Your task to perform on an android device: turn on airplane mode Image 0: 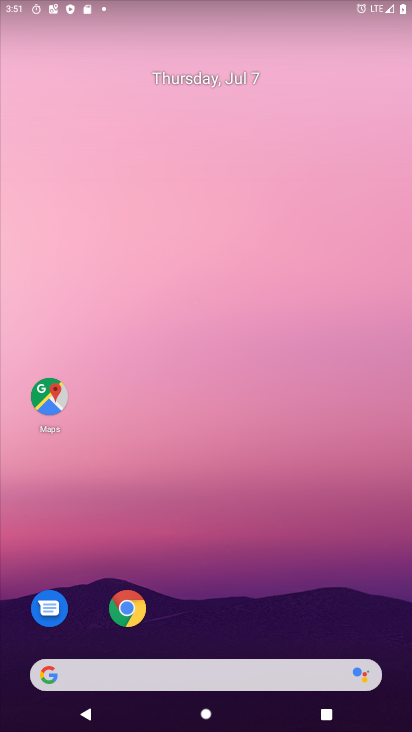
Step 0: drag from (244, 720) to (237, 146)
Your task to perform on an android device: turn on airplane mode Image 1: 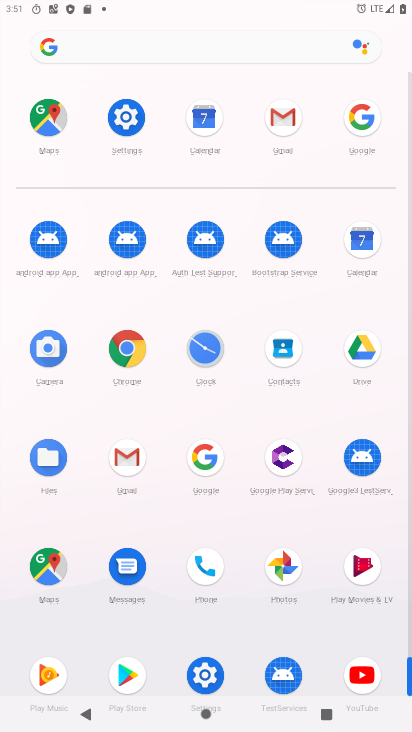
Step 1: click (125, 120)
Your task to perform on an android device: turn on airplane mode Image 2: 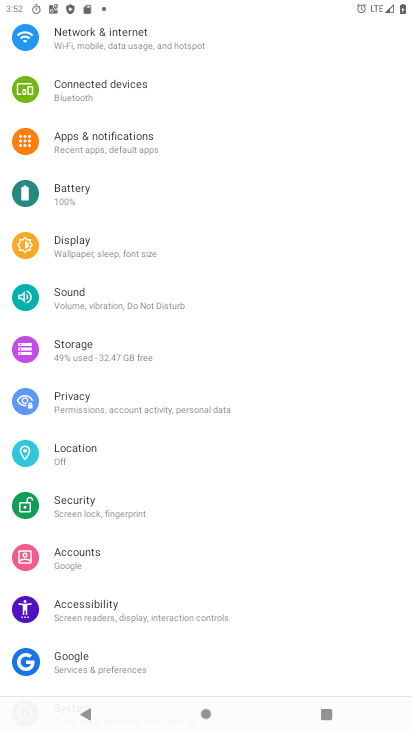
Step 2: drag from (152, 66) to (121, 372)
Your task to perform on an android device: turn on airplane mode Image 3: 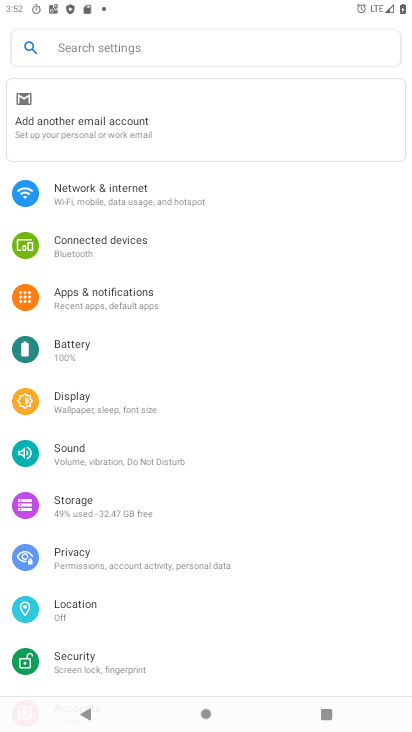
Step 3: click (98, 193)
Your task to perform on an android device: turn on airplane mode Image 4: 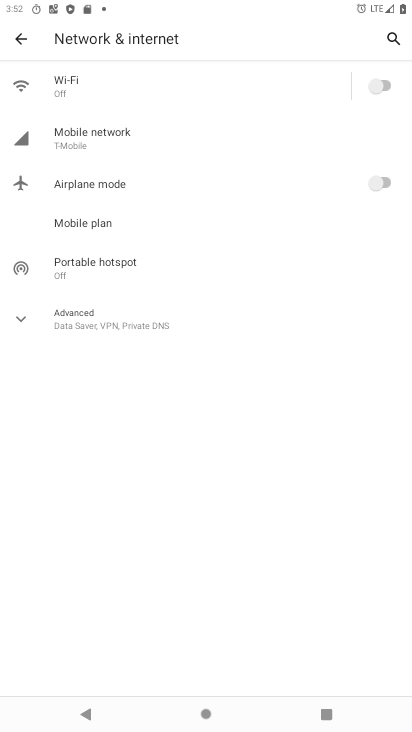
Step 4: click (390, 176)
Your task to perform on an android device: turn on airplane mode Image 5: 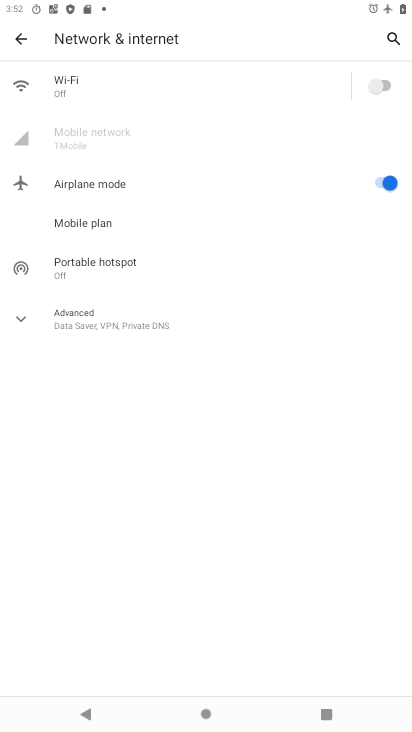
Step 5: task complete